Your task to perform on an android device: toggle notifications settings in the gmail app Image 0: 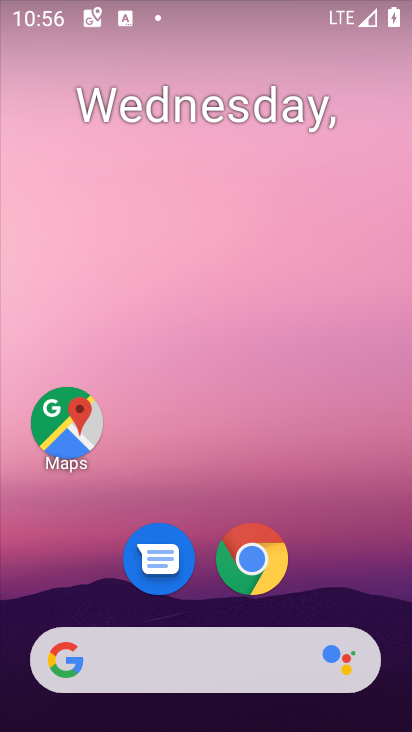
Step 0: drag from (247, 646) to (240, 157)
Your task to perform on an android device: toggle notifications settings in the gmail app Image 1: 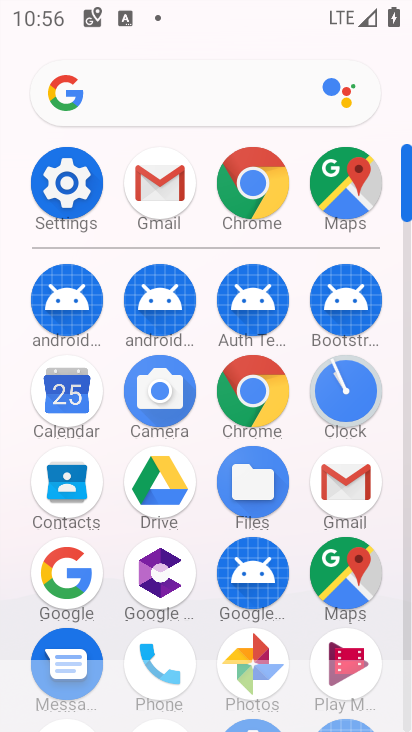
Step 1: click (353, 485)
Your task to perform on an android device: toggle notifications settings in the gmail app Image 2: 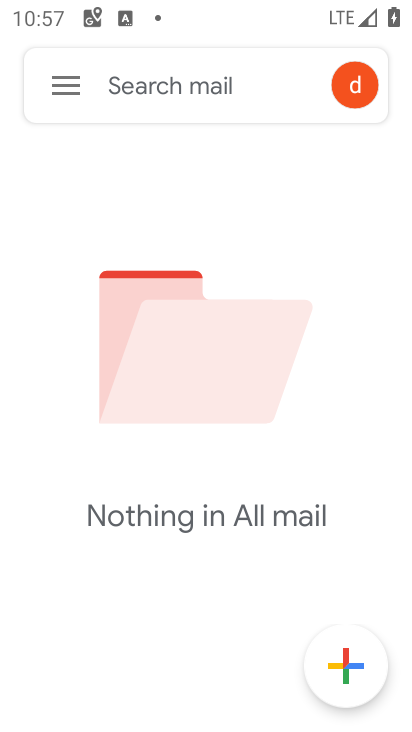
Step 2: click (66, 94)
Your task to perform on an android device: toggle notifications settings in the gmail app Image 3: 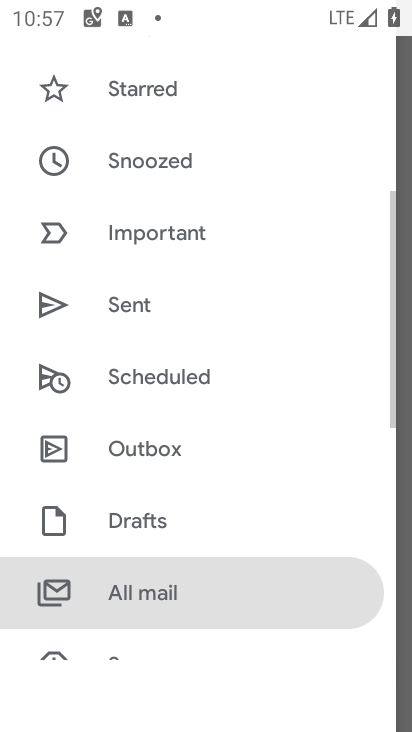
Step 3: drag from (124, 277) to (159, 514)
Your task to perform on an android device: toggle notifications settings in the gmail app Image 4: 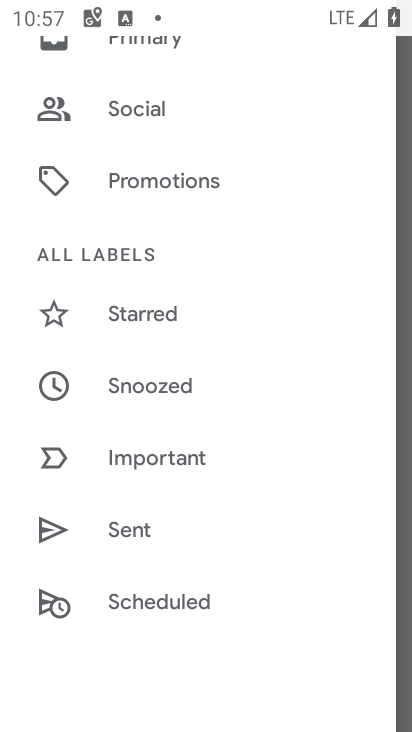
Step 4: drag from (159, 267) to (175, 533)
Your task to perform on an android device: toggle notifications settings in the gmail app Image 5: 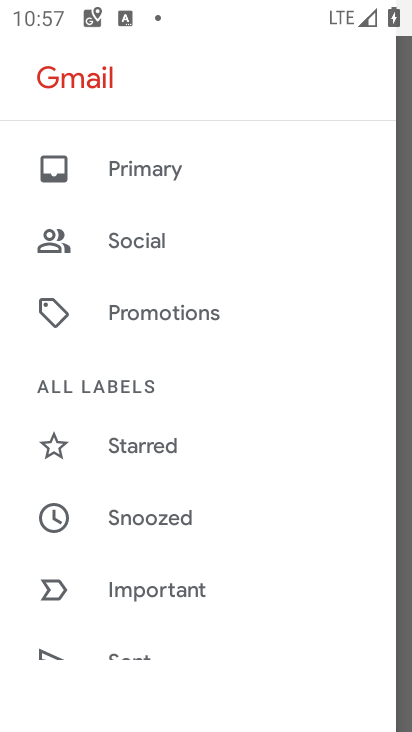
Step 5: drag from (149, 533) to (158, 197)
Your task to perform on an android device: toggle notifications settings in the gmail app Image 6: 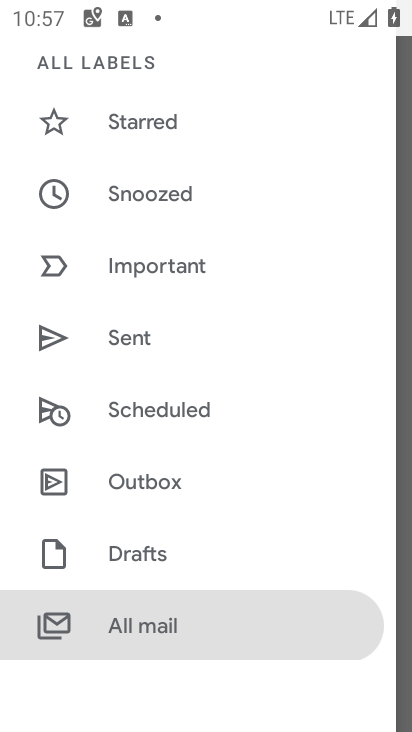
Step 6: drag from (140, 538) to (145, 253)
Your task to perform on an android device: toggle notifications settings in the gmail app Image 7: 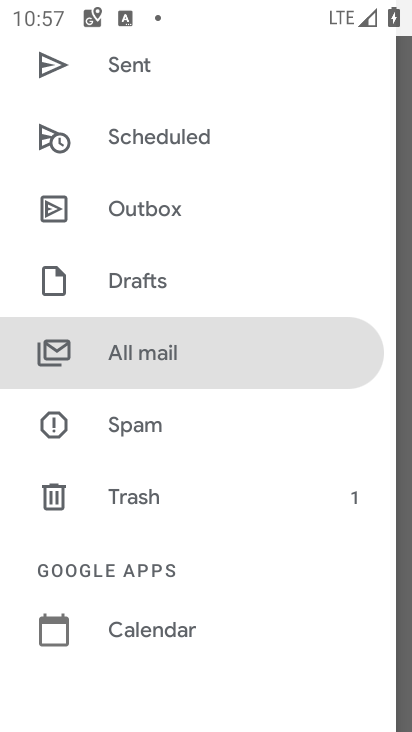
Step 7: drag from (125, 545) to (185, 207)
Your task to perform on an android device: toggle notifications settings in the gmail app Image 8: 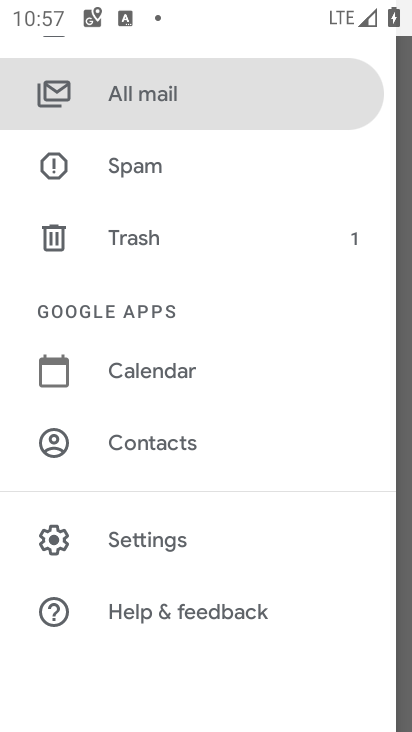
Step 8: click (156, 544)
Your task to perform on an android device: toggle notifications settings in the gmail app Image 9: 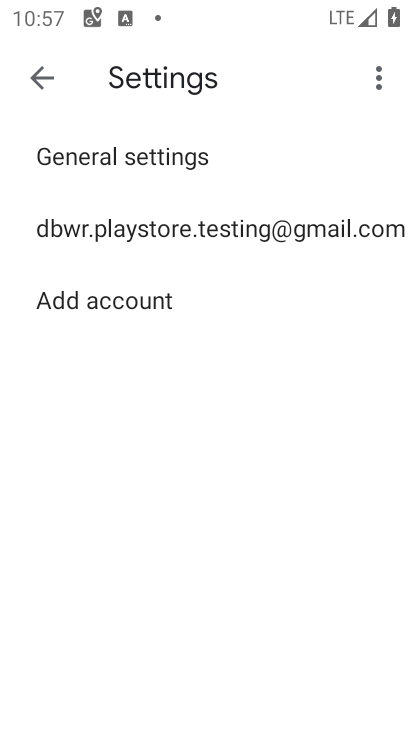
Step 9: click (127, 164)
Your task to perform on an android device: toggle notifications settings in the gmail app Image 10: 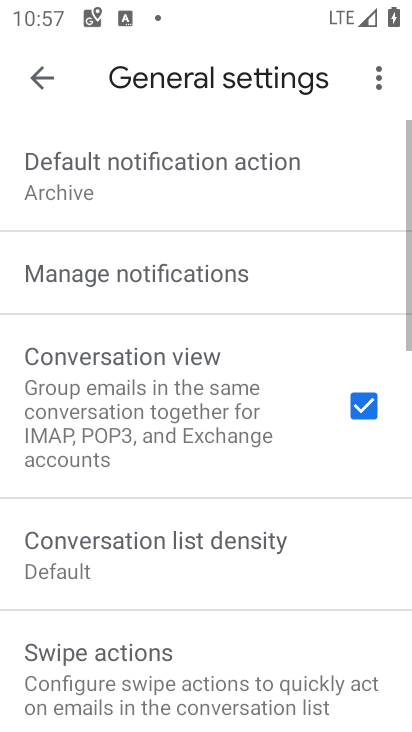
Step 10: click (137, 279)
Your task to perform on an android device: toggle notifications settings in the gmail app Image 11: 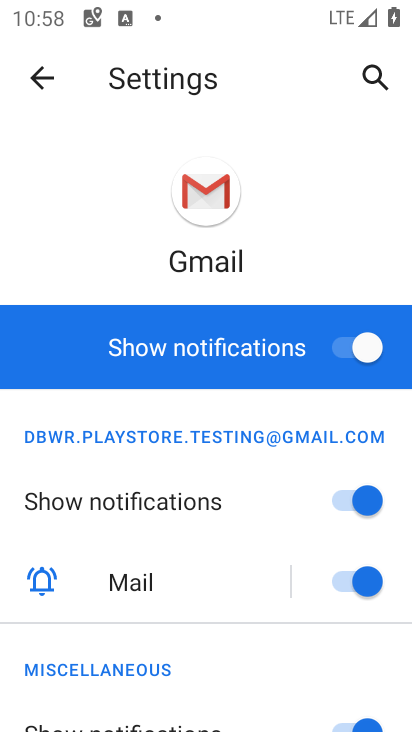
Step 11: click (357, 361)
Your task to perform on an android device: toggle notifications settings in the gmail app Image 12: 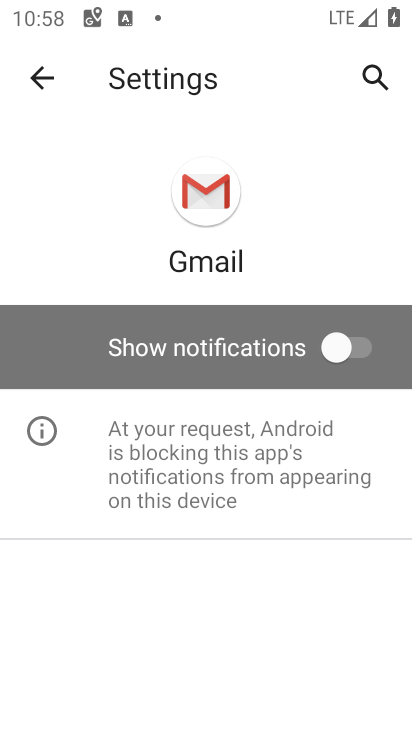
Step 12: task complete